Your task to perform on an android device: turn on sleep mode Image 0: 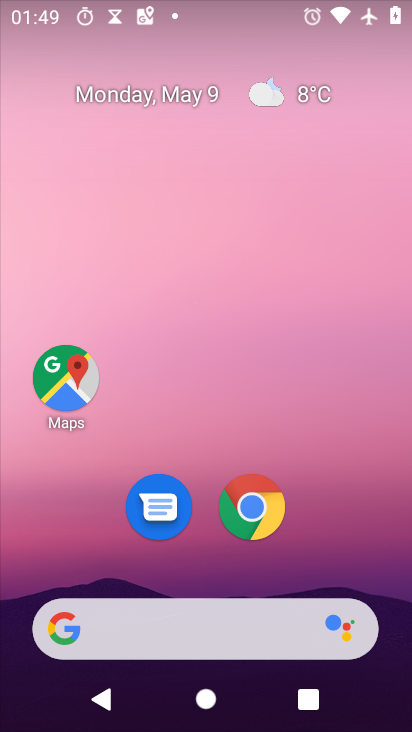
Step 0: drag from (236, 716) to (221, 126)
Your task to perform on an android device: turn on sleep mode Image 1: 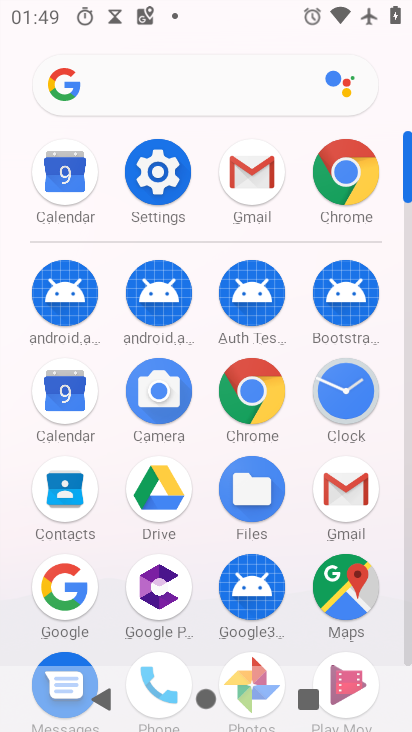
Step 1: click (149, 169)
Your task to perform on an android device: turn on sleep mode Image 2: 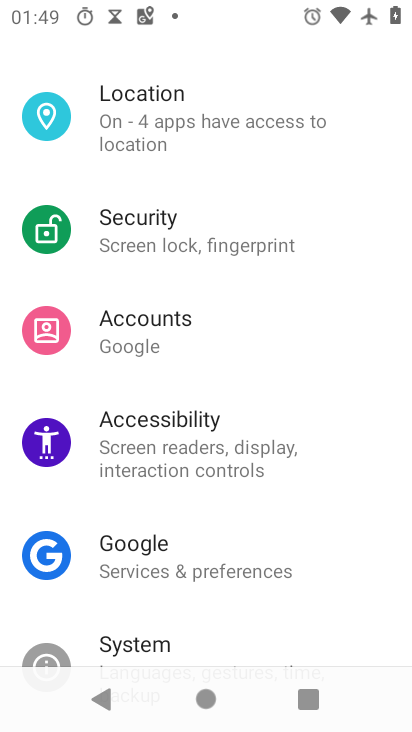
Step 2: task complete